Your task to perform on an android device: open sync settings in chrome Image 0: 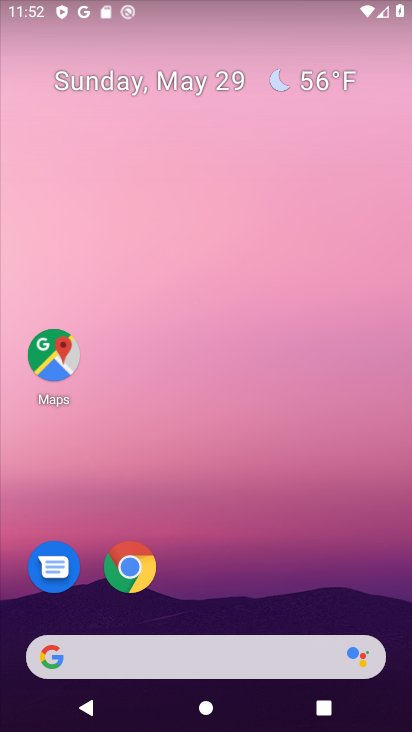
Step 0: drag from (140, 624) to (208, 64)
Your task to perform on an android device: open sync settings in chrome Image 1: 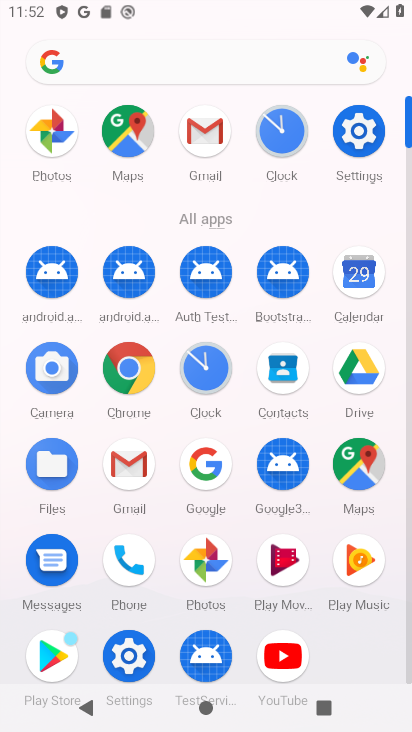
Step 1: click (134, 370)
Your task to perform on an android device: open sync settings in chrome Image 2: 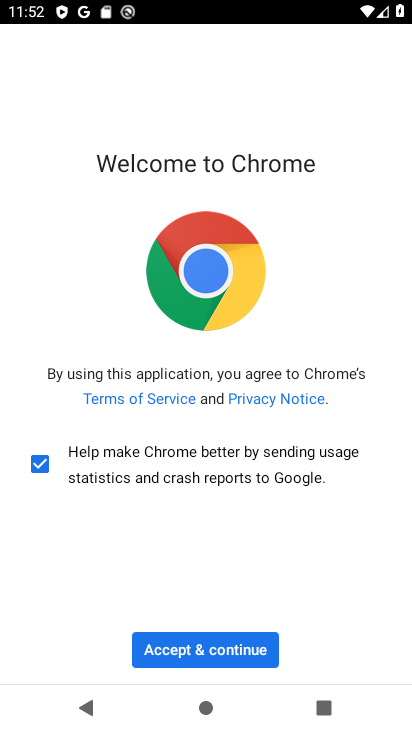
Step 2: click (203, 643)
Your task to perform on an android device: open sync settings in chrome Image 3: 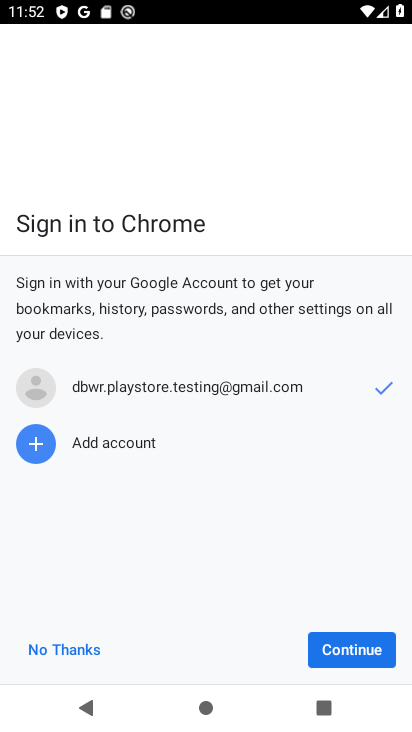
Step 3: click (356, 637)
Your task to perform on an android device: open sync settings in chrome Image 4: 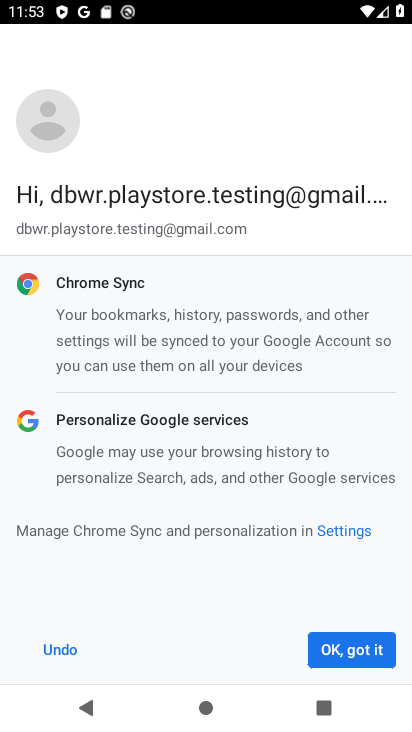
Step 4: click (360, 643)
Your task to perform on an android device: open sync settings in chrome Image 5: 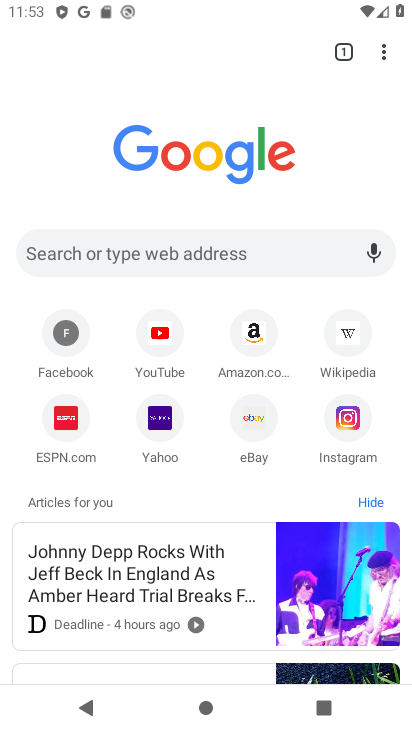
Step 5: drag from (382, 64) to (259, 439)
Your task to perform on an android device: open sync settings in chrome Image 6: 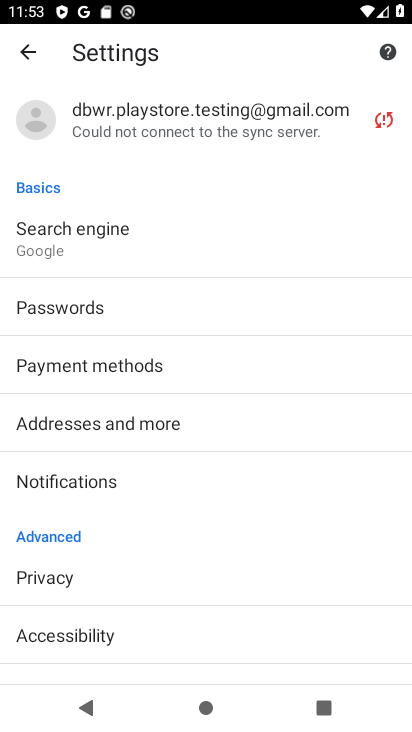
Step 6: click (234, 137)
Your task to perform on an android device: open sync settings in chrome Image 7: 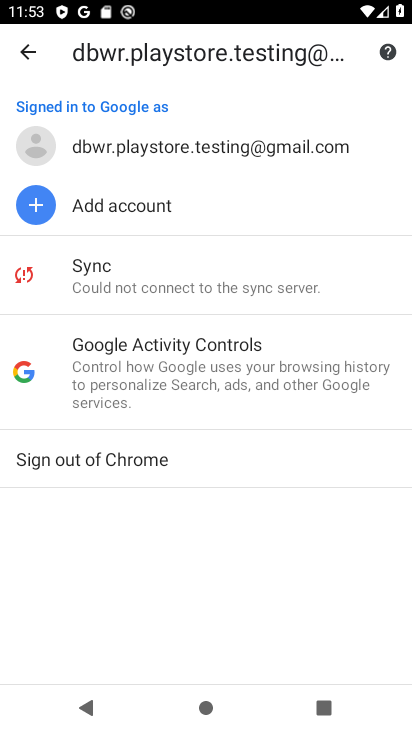
Step 7: click (267, 276)
Your task to perform on an android device: open sync settings in chrome Image 8: 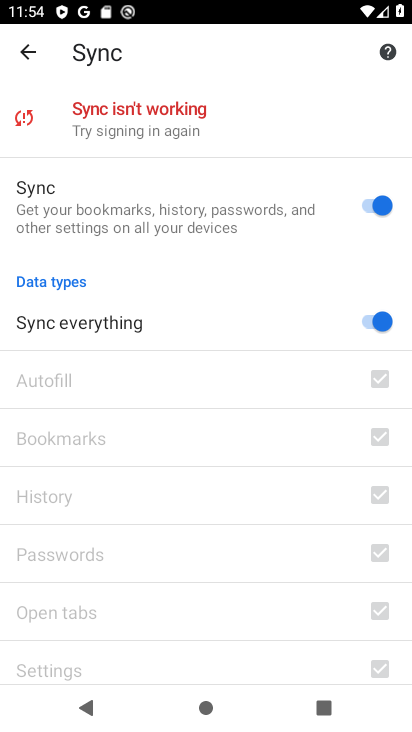
Step 8: task complete